Your task to perform on an android device: Open Google Chrome Image 0: 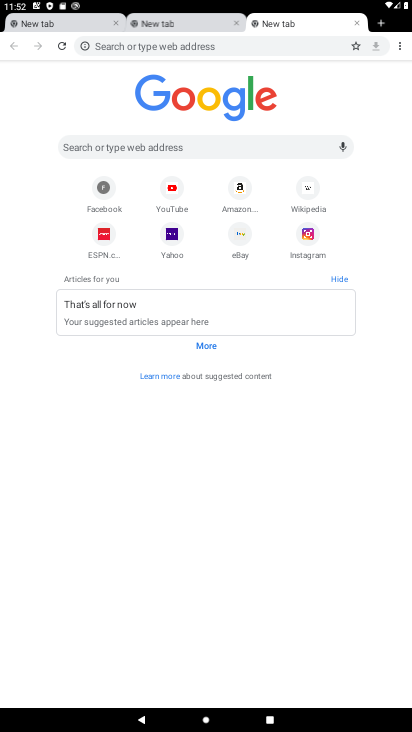
Step 0: press home button
Your task to perform on an android device: Open Google Chrome Image 1: 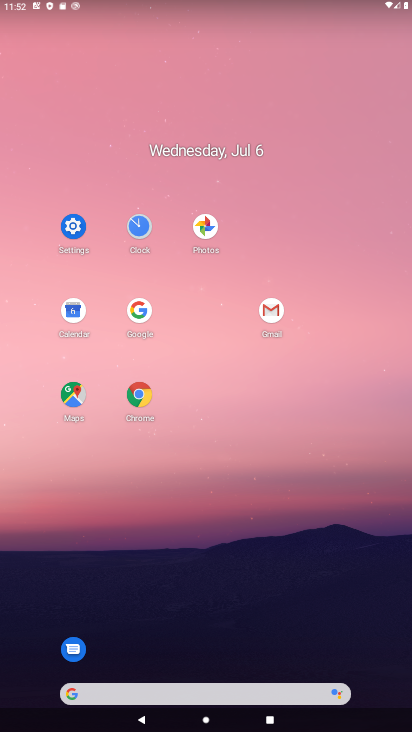
Step 1: click (135, 394)
Your task to perform on an android device: Open Google Chrome Image 2: 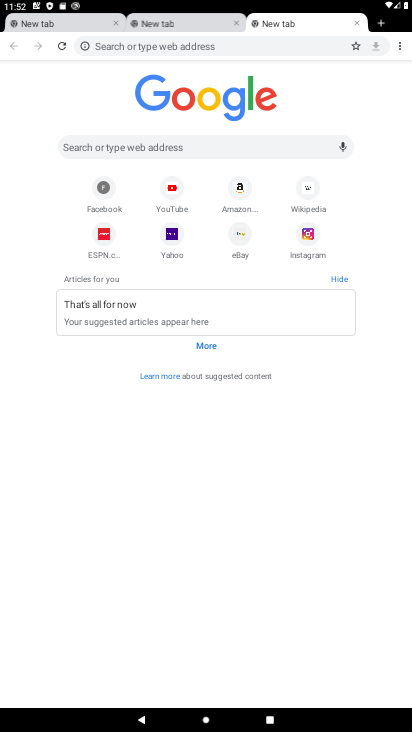
Step 2: task complete